Your task to perform on an android device: Go to CNN.com Image 0: 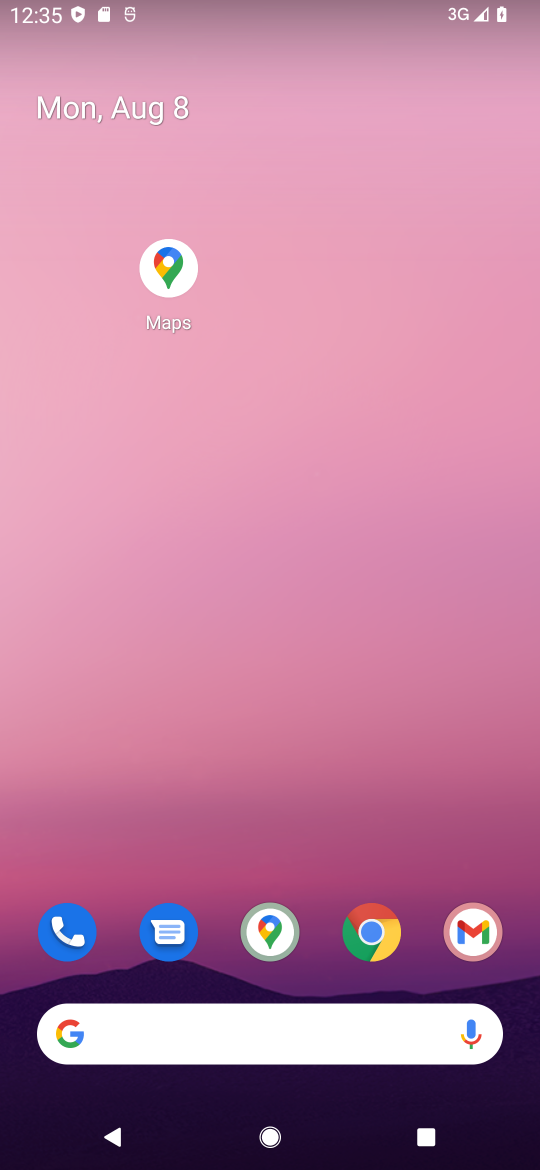
Step 0: click (243, 1053)
Your task to perform on an android device: Go to CNN.com Image 1: 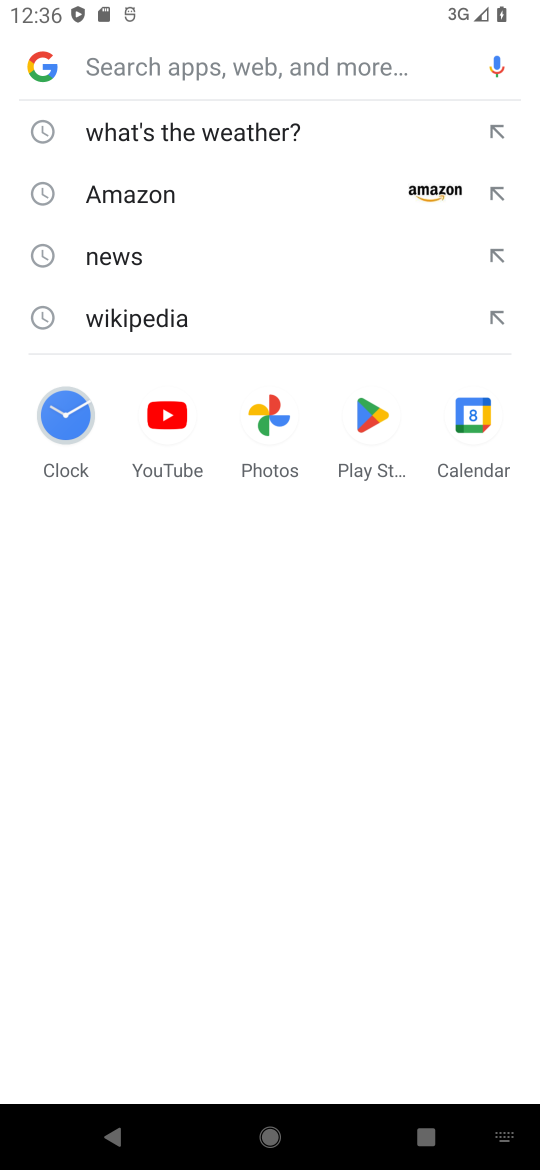
Step 1: type "cnn"
Your task to perform on an android device: Go to CNN.com Image 2: 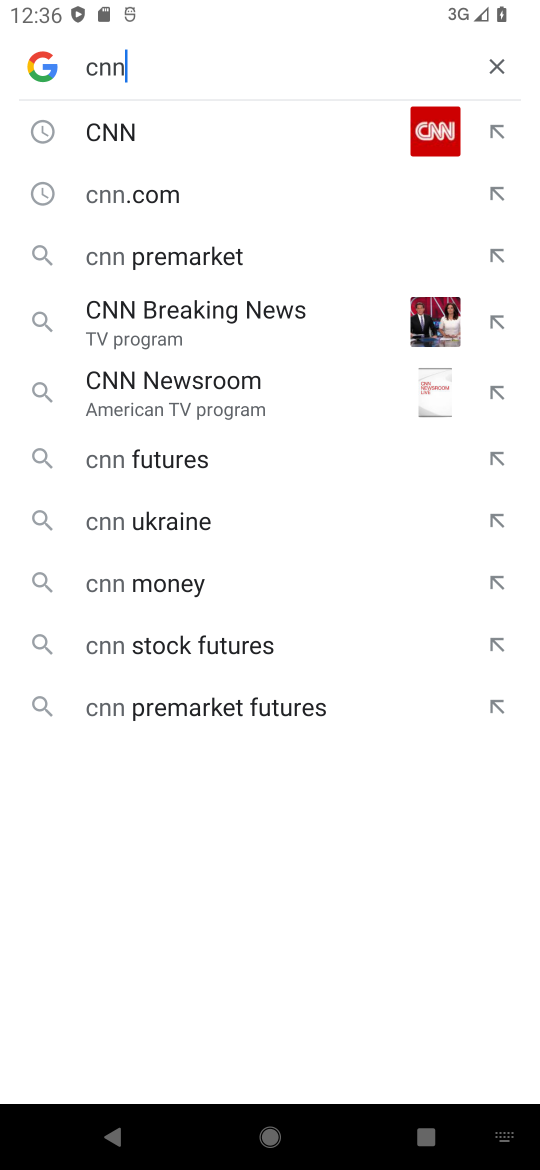
Step 2: click (137, 182)
Your task to perform on an android device: Go to CNN.com Image 3: 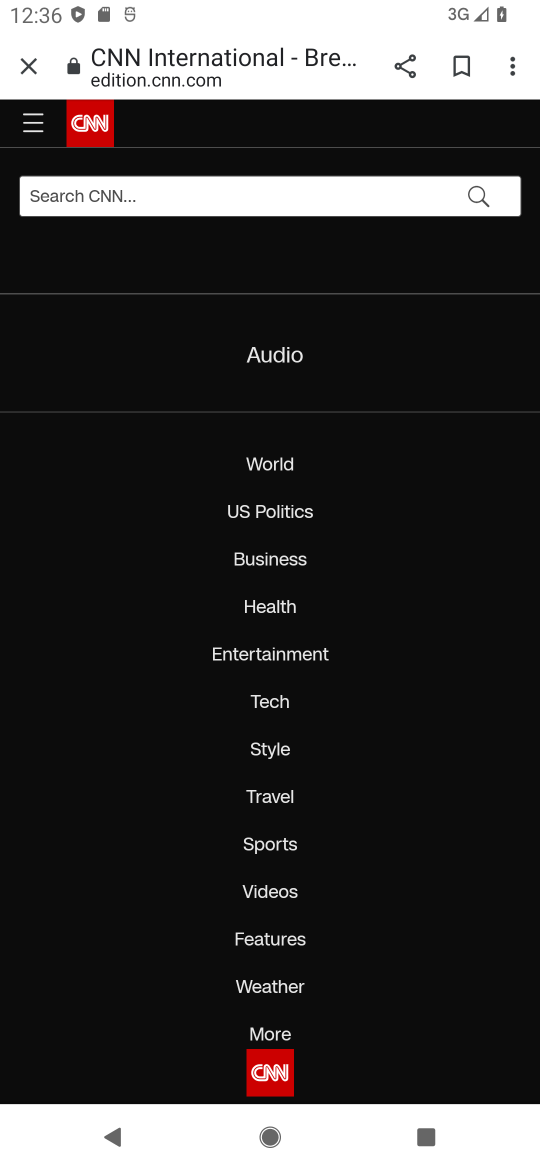
Step 3: task complete